Your task to perform on an android device: search for starred emails in the gmail app Image 0: 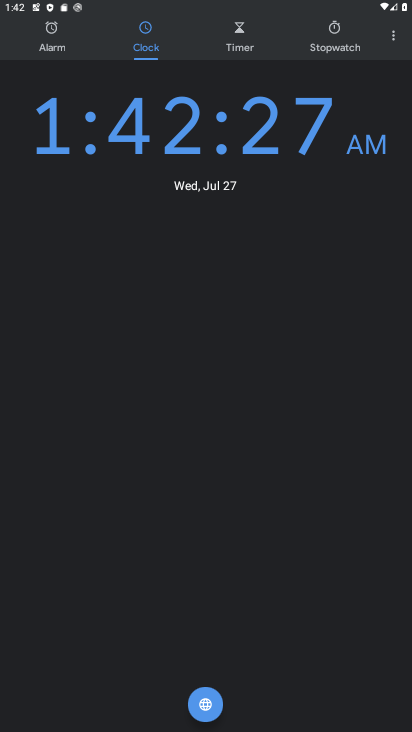
Step 0: press home button
Your task to perform on an android device: search for starred emails in the gmail app Image 1: 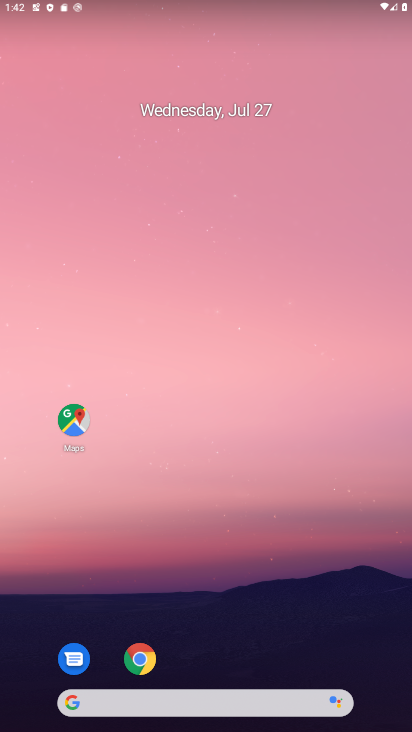
Step 1: drag from (294, 613) to (247, 93)
Your task to perform on an android device: search for starred emails in the gmail app Image 2: 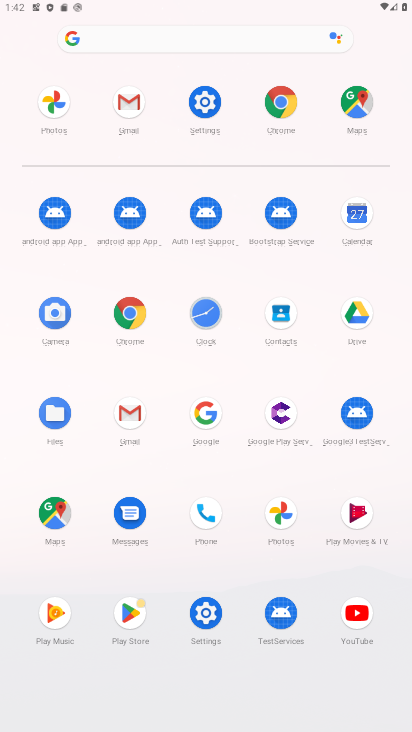
Step 2: click (124, 102)
Your task to perform on an android device: search for starred emails in the gmail app Image 3: 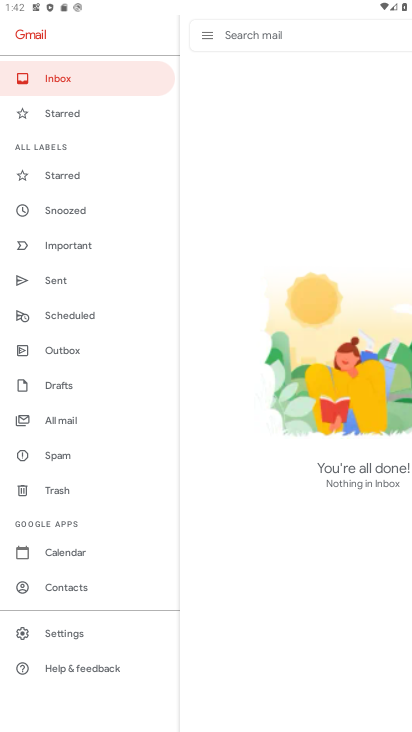
Step 3: click (51, 171)
Your task to perform on an android device: search for starred emails in the gmail app Image 4: 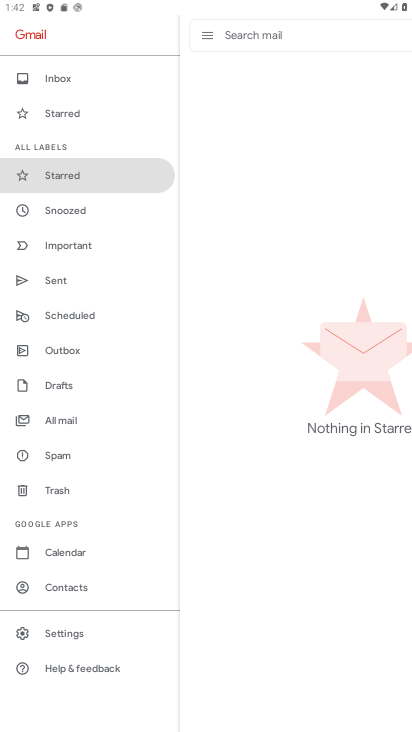
Step 4: task complete